Your task to perform on an android device: Open eBay Image 0: 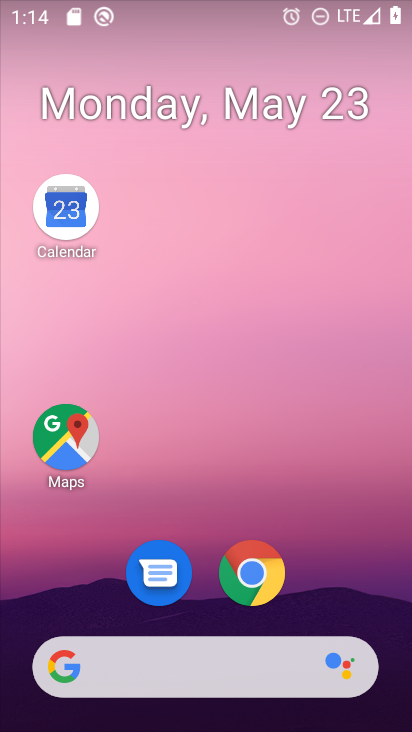
Step 0: click (248, 565)
Your task to perform on an android device: Open eBay Image 1: 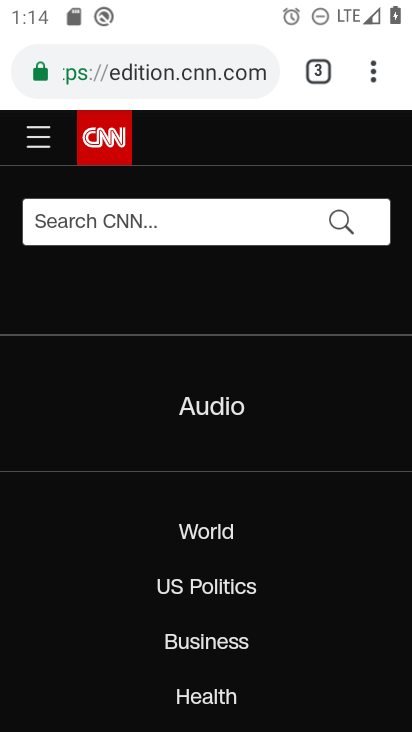
Step 1: click (193, 54)
Your task to perform on an android device: Open eBay Image 2: 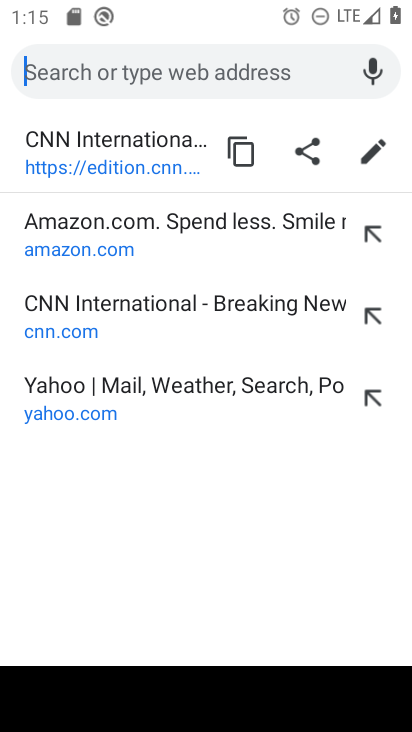
Step 2: type "ebay"
Your task to perform on an android device: Open eBay Image 3: 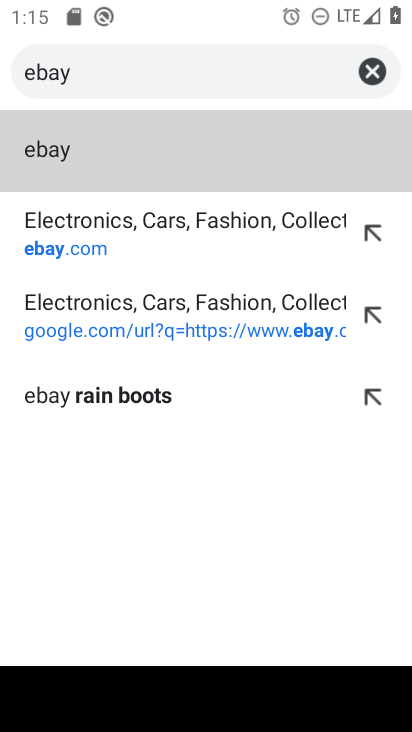
Step 3: click (40, 159)
Your task to perform on an android device: Open eBay Image 4: 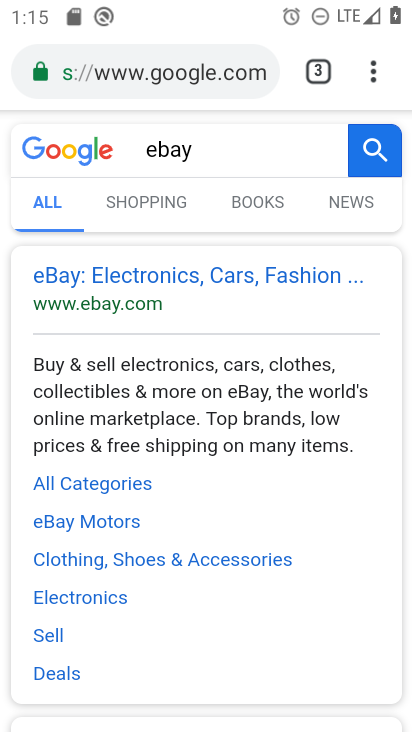
Step 4: click (68, 278)
Your task to perform on an android device: Open eBay Image 5: 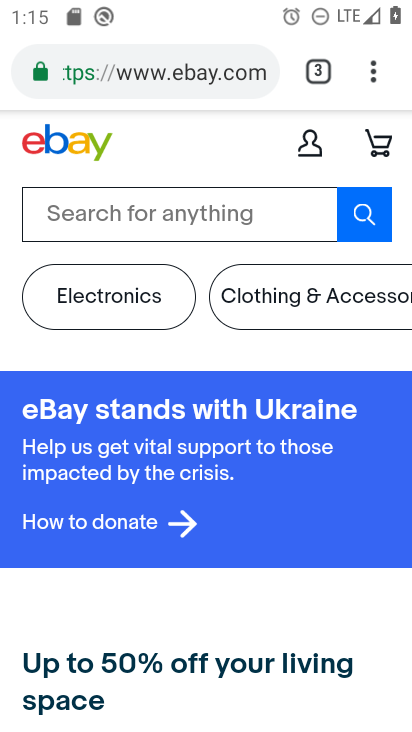
Step 5: task complete